Your task to perform on an android device: Open accessibility settings Image 0: 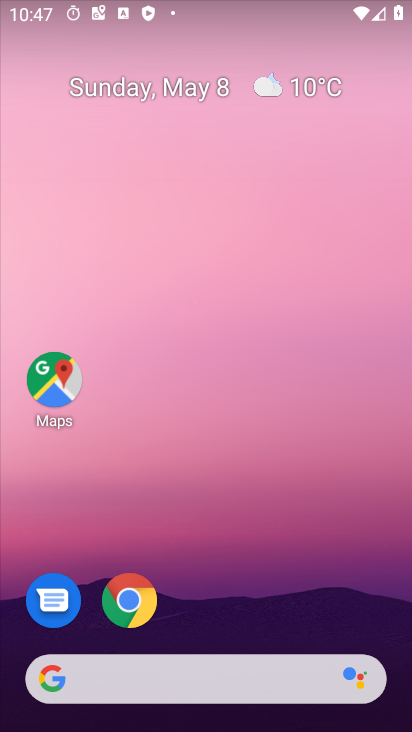
Step 0: drag from (222, 649) to (246, 252)
Your task to perform on an android device: Open accessibility settings Image 1: 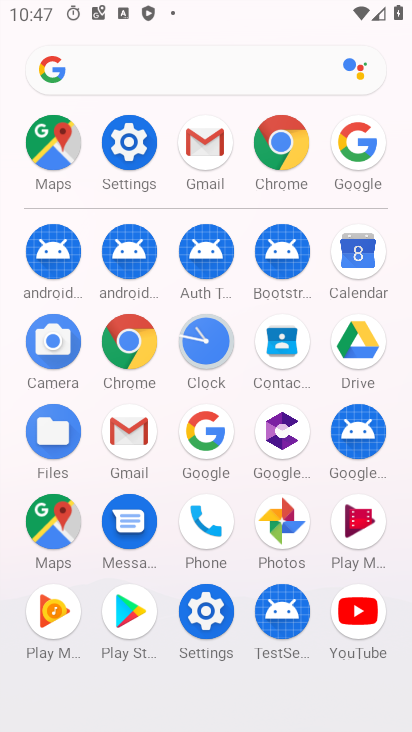
Step 1: click (130, 144)
Your task to perform on an android device: Open accessibility settings Image 2: 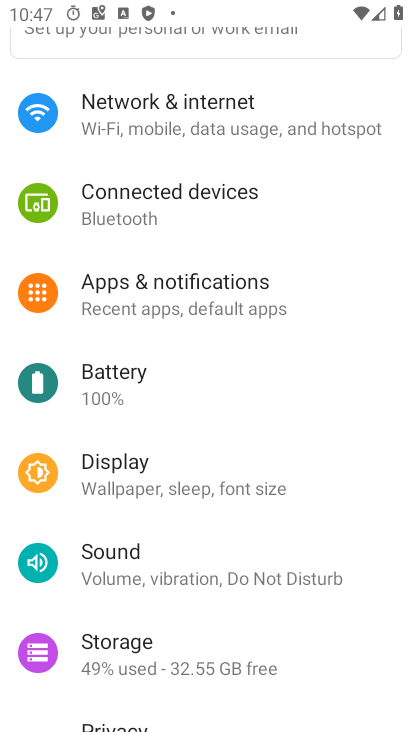
Step 2: drag from (178, 520) to (279, 165)
Your task to perform on an android device: Open accessibility settings Image 3: 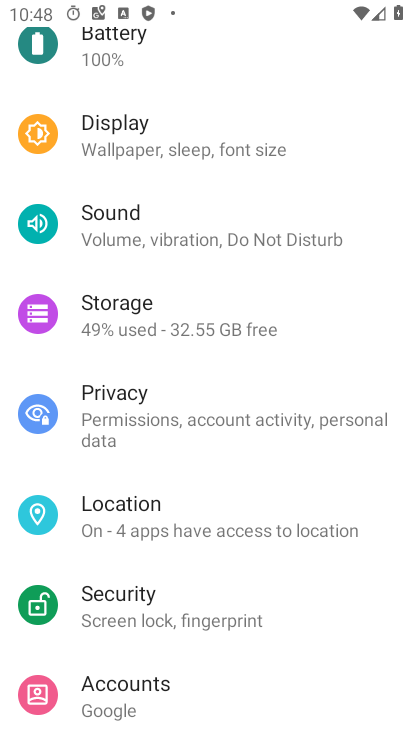
Step 3: drag from (200, 561) to (230, 198)
Your task to perform on an android device: Open accessibility settings Image 4: 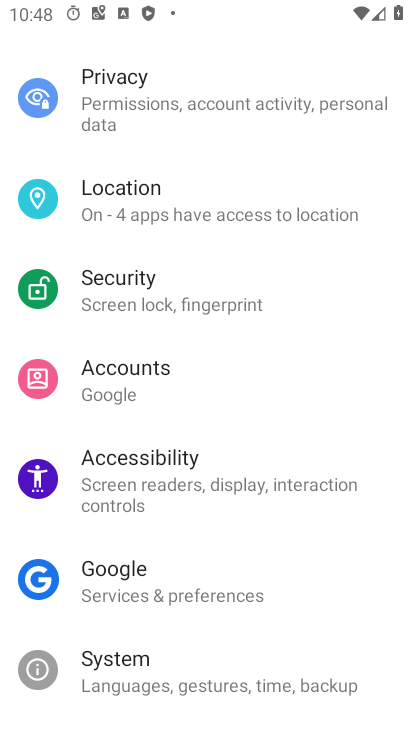
Step 4: click (202, 492)
Your task to perform on an android device: Open accessibility settings Image 5: 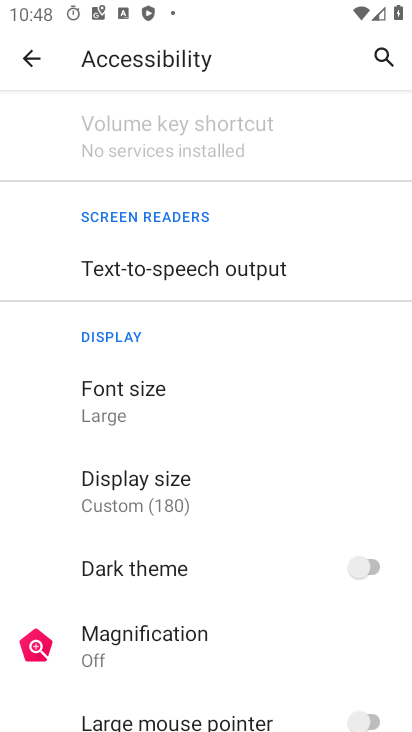
Step 5: task complete